Your task to perform on an android device: Add "logitech g910" to the cart on amazon Image 0: 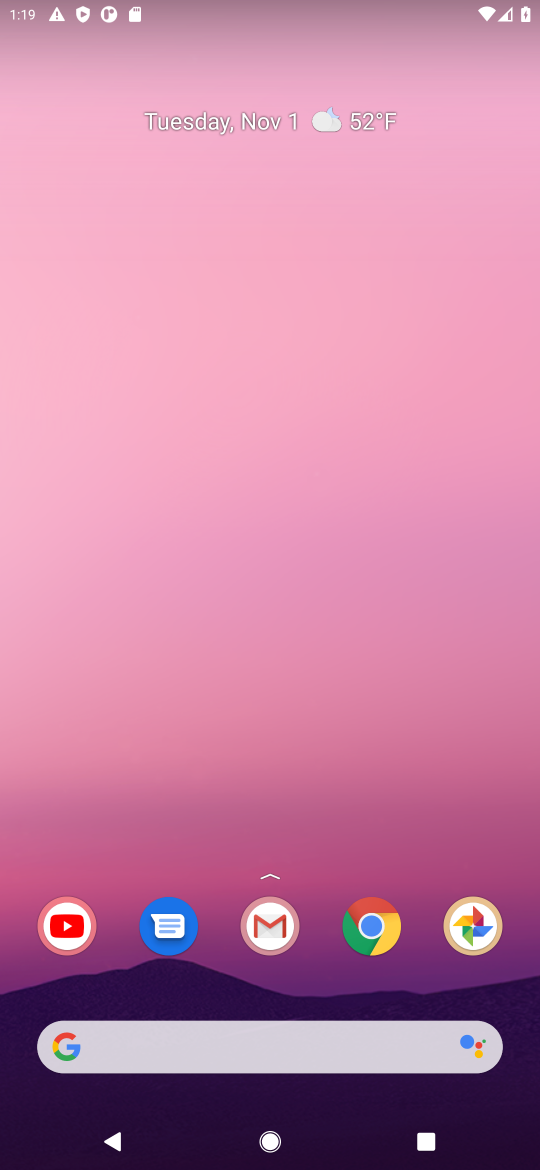
Step 0: click (372, 924)
Your task to perform on an android device: Add "logitech g910" to the cart on amazon Image 1: 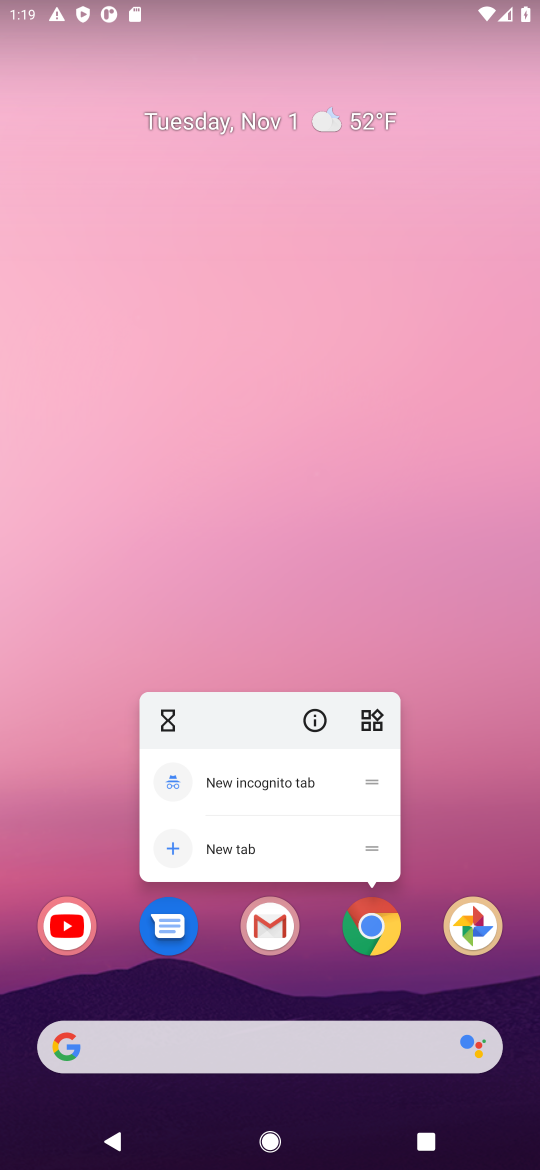
Step 1: click (372, 924)
Your task to perform on an android device: Add "logitech g910" to the cart on amazon Image 2: 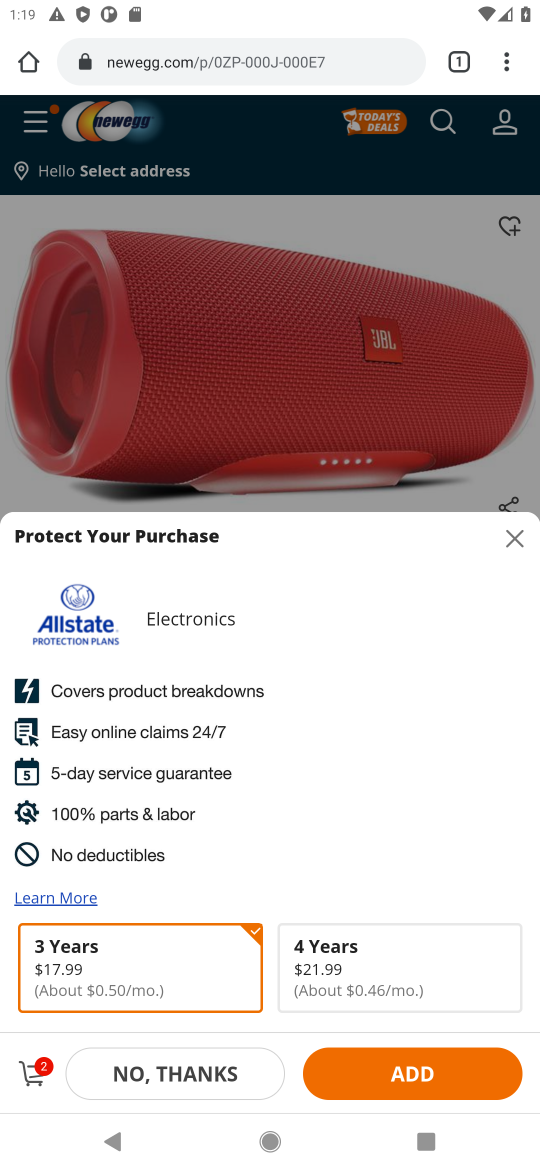
Step 2: click (278, 54)
Your task to perform on an android device: Add "logitech g910" to the cart on amazon Image 3: 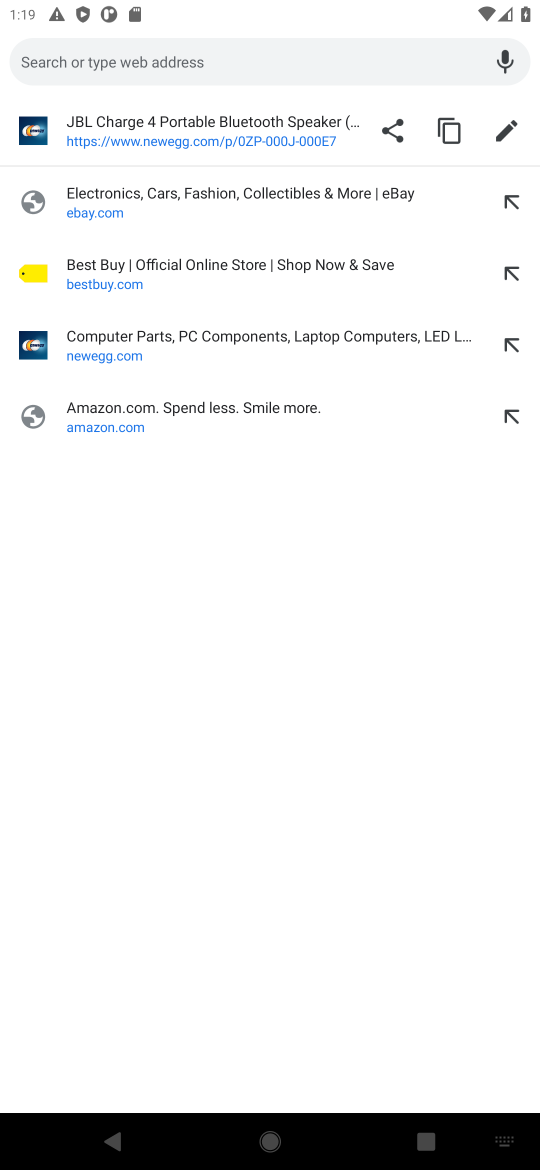
Step 3: type "amazon"
Your task to perform on an android device: Add "logitech g910" to the cart on amazon Image 4: 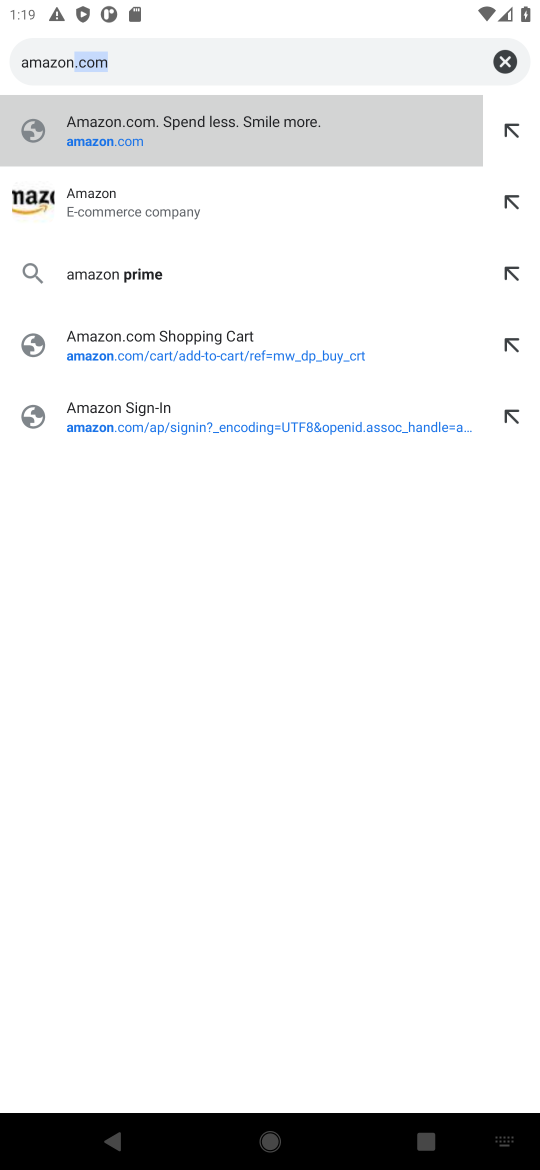
Step 4: press enter
Your task to perform on an android device: Add "logitech g910" to the cart on amazon Image 5: 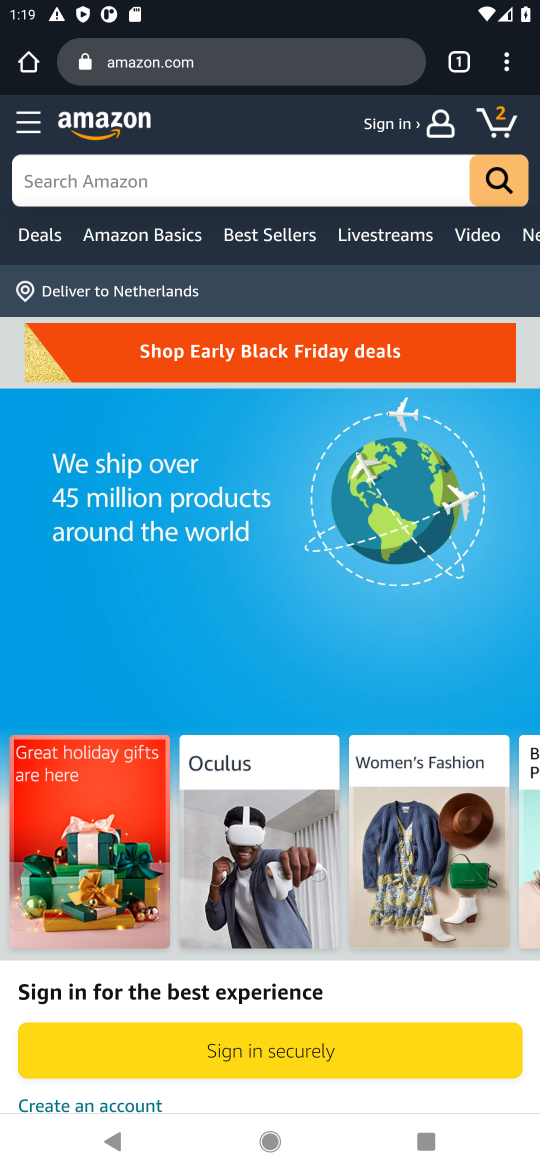
Step 5: click (219, 180)
Your task to perform on an android device: Add "logitech g910" to the cart on amazon Image 6: 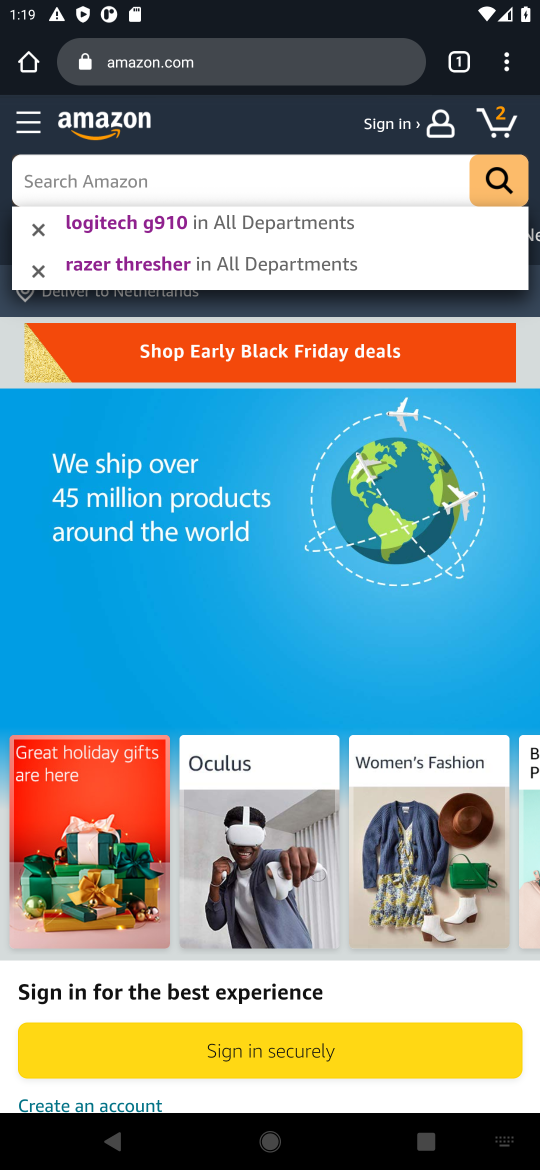
Step 6: type "logitech g910"
Your task to perform on an android device: Add "logitech g910" to the cart on amazon Image 7: 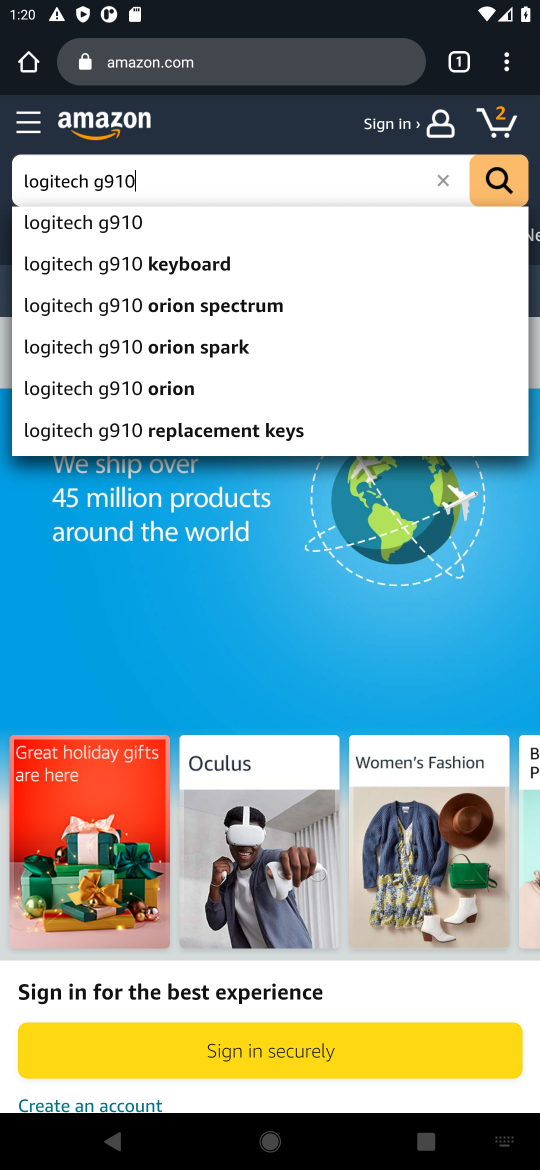
Step 7: click (91, 223)
Your task to perform on an android device: Add "logitech g910" to the cart on amazon Image 8: 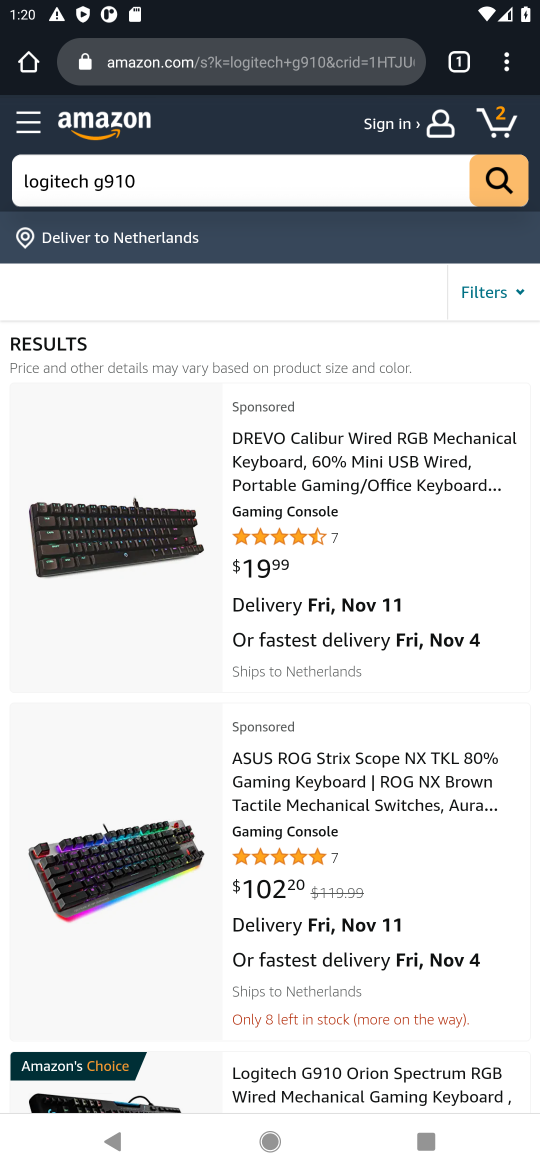
Step 8: click (261, 1078)
Your task to perform on an android device: Add "logitech g910" to the cart on amazon Image 9: 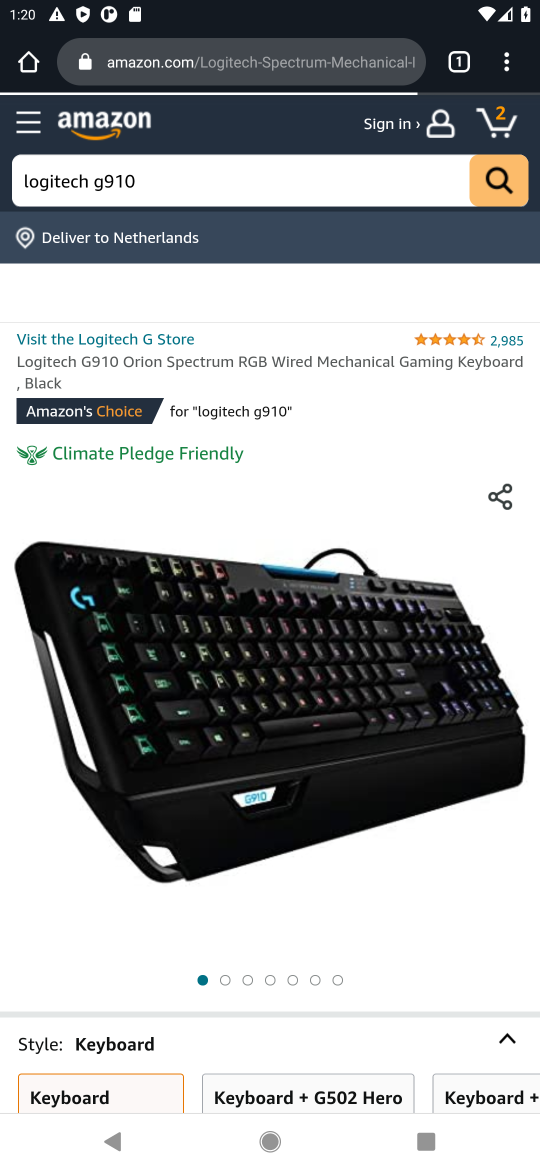
Step 9: drag from (296, 941) to (223, 493)
Your task to perform on an android device: Add "logitech g910" to the cart on amazon Image 10: 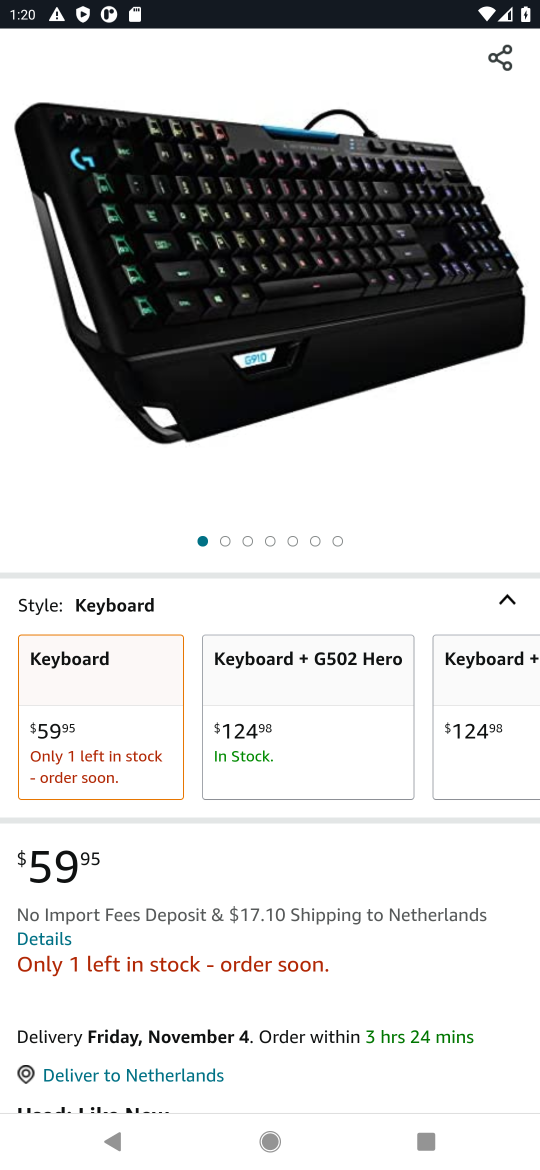
Step 10: drag from (298, 869) to (217, 579)
Your task to perform on an android device: Add "logitech g910" to the cart on amazon Image 11: 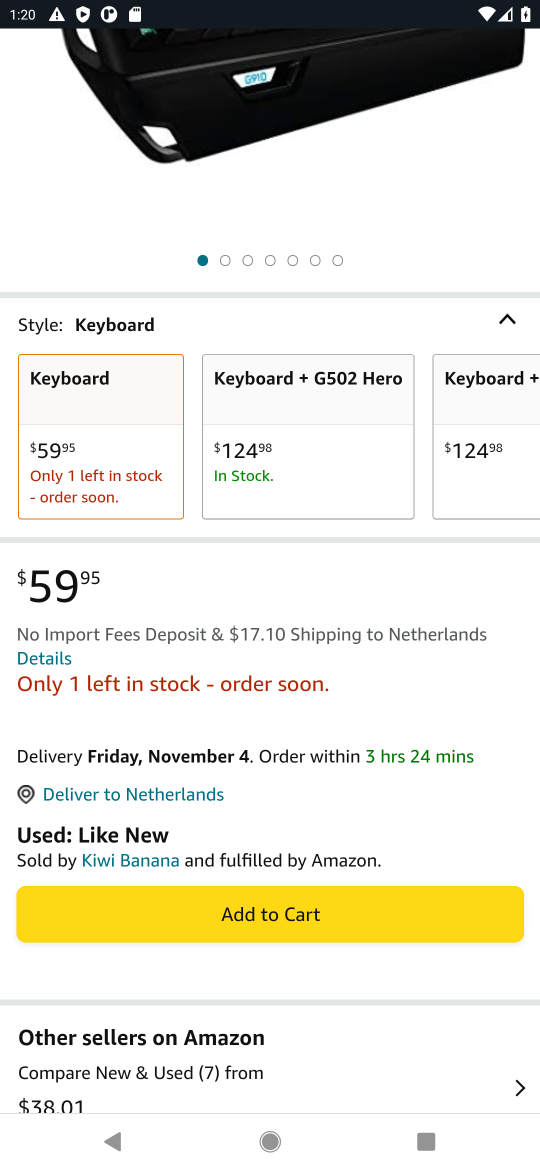
Step 11: click (274, 917)
Your task to perform on an android device: Add "logitech g910" to the cart on amazon Image 12: 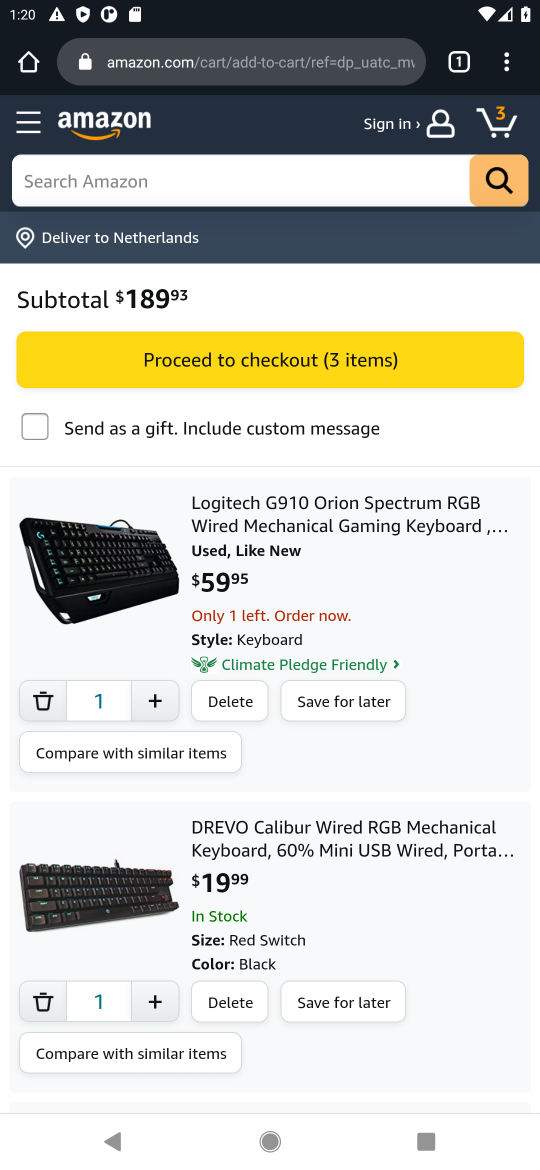
Step 12: click (353, 453)
Your task to perform on an android device: Add "logitech g910" to the cart on amazon Image 13: 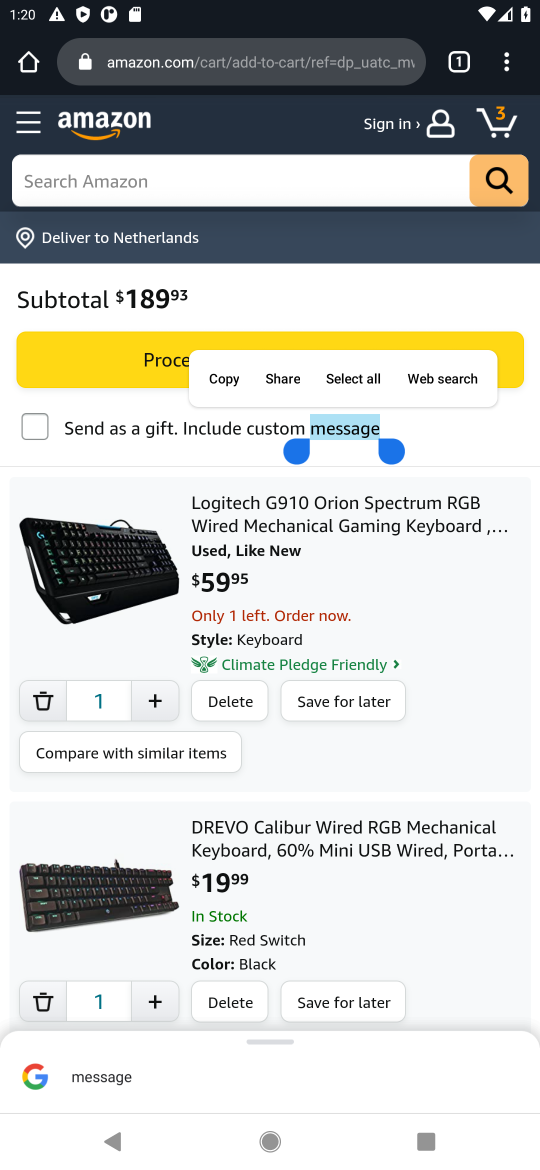
Step 13: task complete